Your task to perform on an android device: change the clock display to analog Image 0: 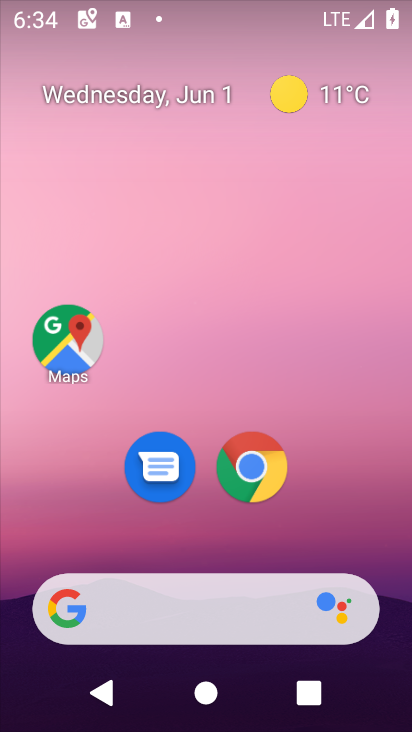
Step 0: drag from (319, 501) to (298, 119)
Your task to perform on an android device: change the clock display to analog Image 1: 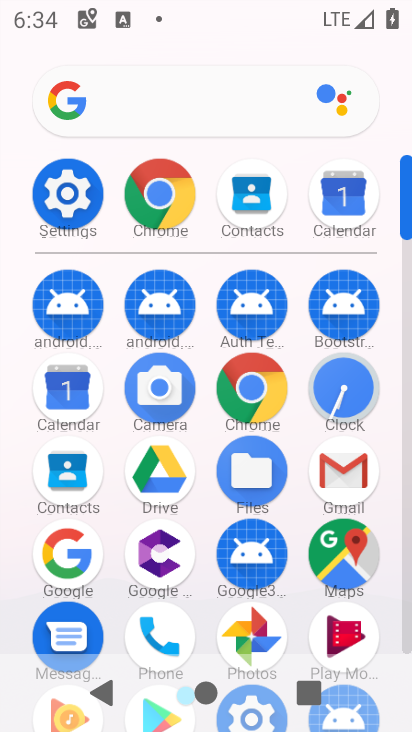
Step 1: click (322, 393)
Your task to perform on an android device: change the clock display to analog Image 2: 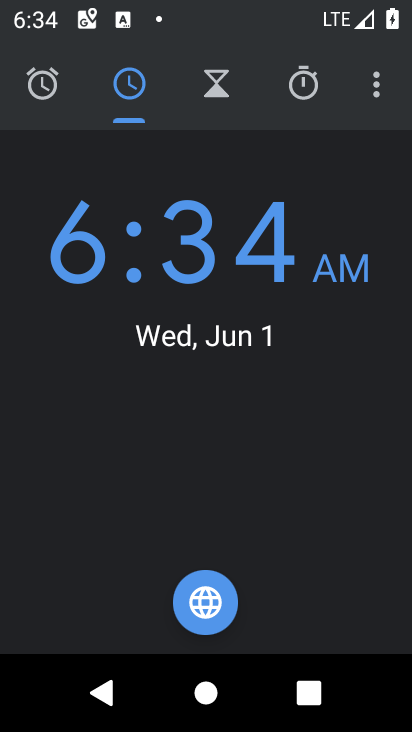
Step 2: click (374, 77)
Your task to perform on an android device: change the clock display to analog Image 3: 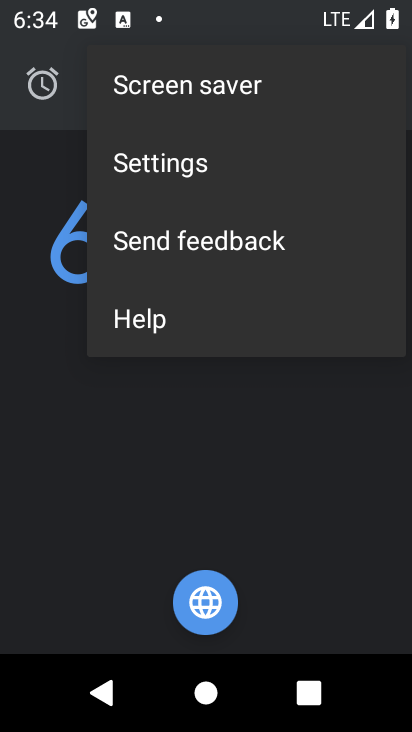
Step 3: click (268, 171)
Your task to perform on an android device: change the clock display to analog Image 4: 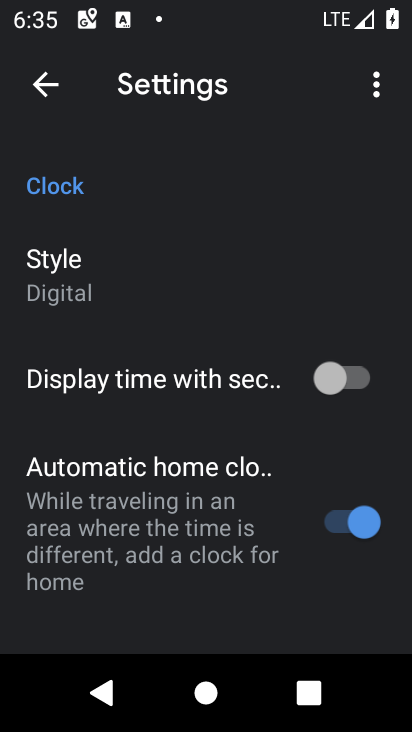
Step 4: click (114, 277)
Your task to perform on an android device: change the clock display to analog Image 5: 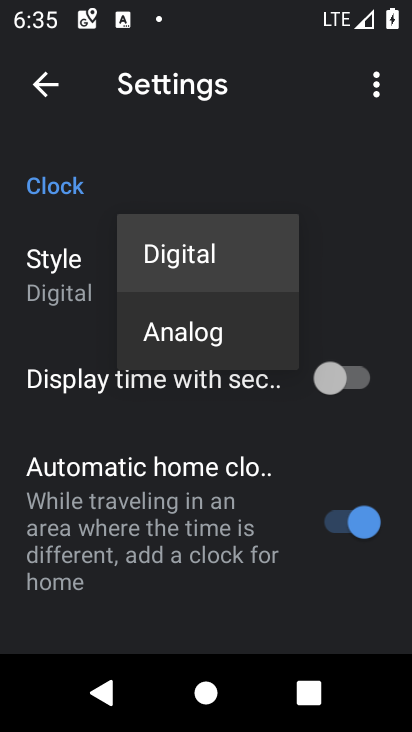
Step 5: click (165, 318)
Your task to perform on an android device: change the clock display to analog Image 6: 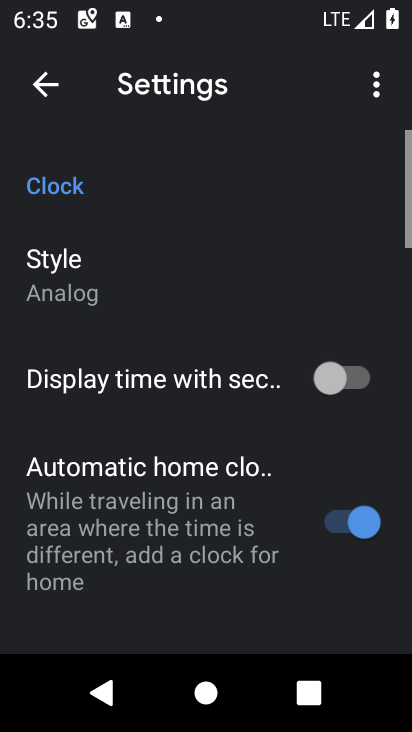
Step 6: task complete